Your task to perform on an android device: Open eBay Image 0: 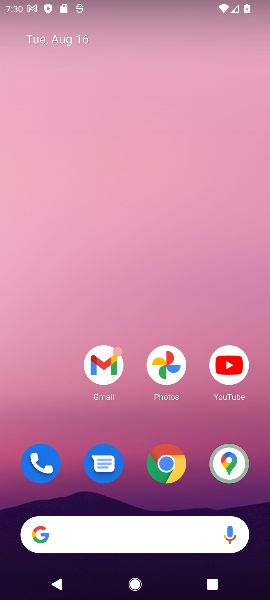
Step 0: click (164, 460)
Your task to perform on an android device: Open eBay Image 1: 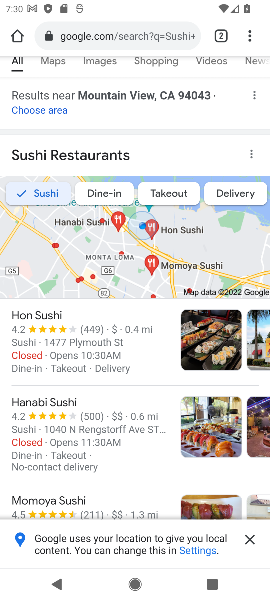
Step 1: click (155, 39)
Your task to perform on an android device: Open eBay Image 2: 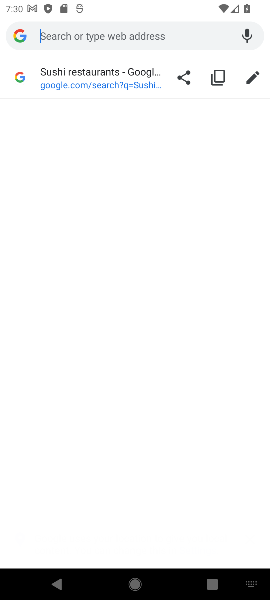
Step 2: type "eBay"
Your task to perform on an android device: Open eBay Image 3: 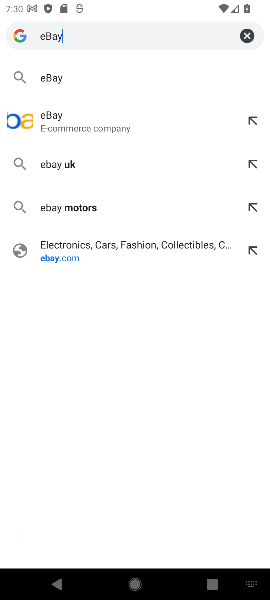
Step 3: click (70, 126)
Your task to perform on an android device: Open eBay Image 4: 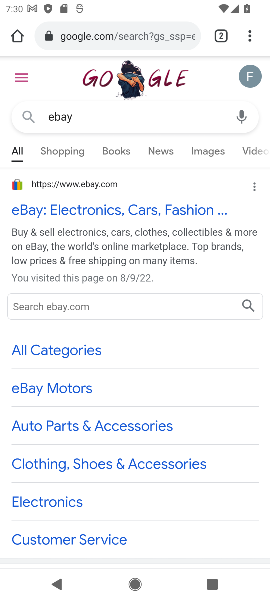
Step 4: task complete